Your task to perform on an android device: Open calendar and show me the first week of next month Image 0: 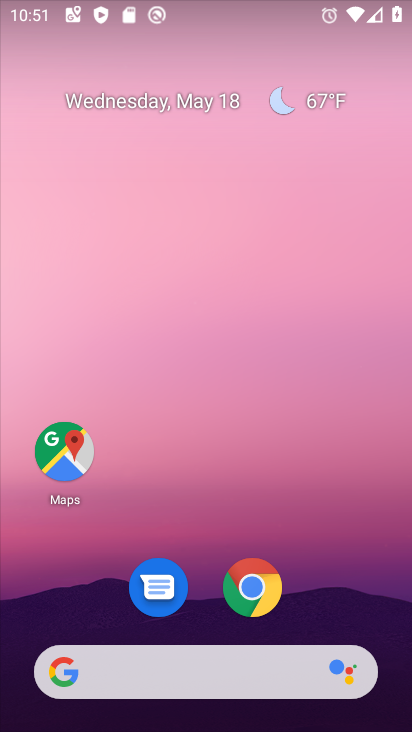
Step 0: drag from (298, 536) to (321, 31)
Your task to perform on an android device: Open calendar and show me the first week of next month Image 1: 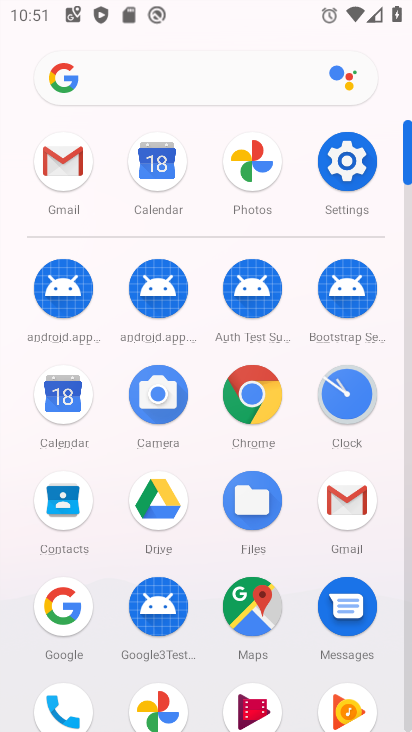
Step 1: click (137, 153)
Your task to perform on an android device: Open calendar and show me the first week of next month Image 2: 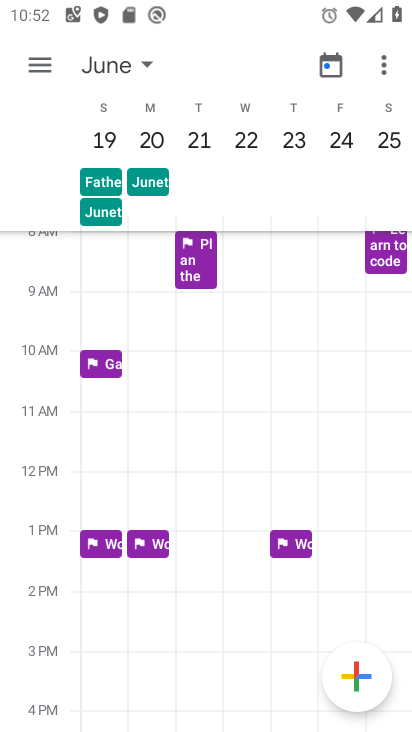
Step 2: click (128, 61)
Your task to perform on an android device: Open calendar and show me the first week of next month Image 3: 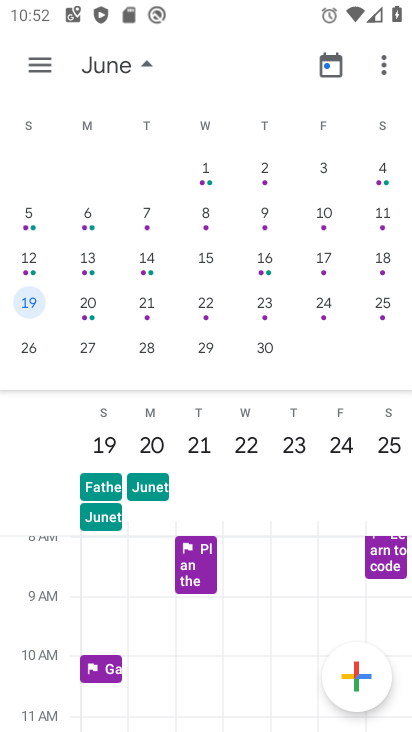
Step 3: task complete